Your task to perform on an android device: open a new tab in the chrome app Image 0: 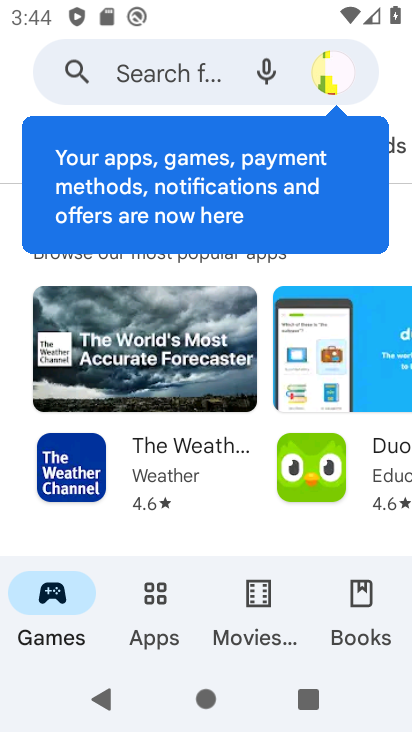
Step 0: press home button
Your task to perform on an android device: open a new tab in the chrome app Image 1: 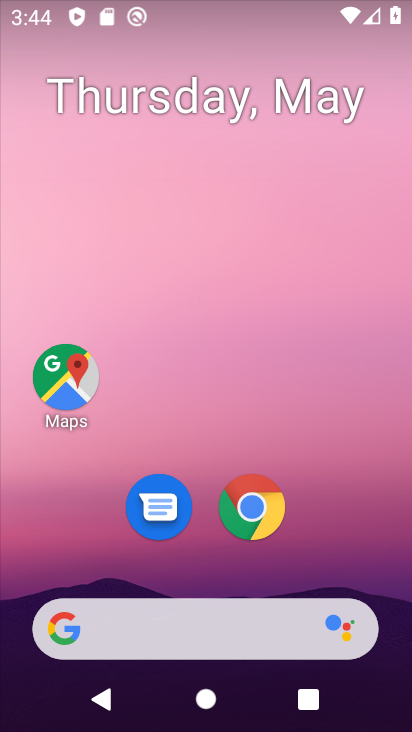
Step 1: click (252, 509)
Your task to perform on an android device: open a new tab in the chrome app Image 2: 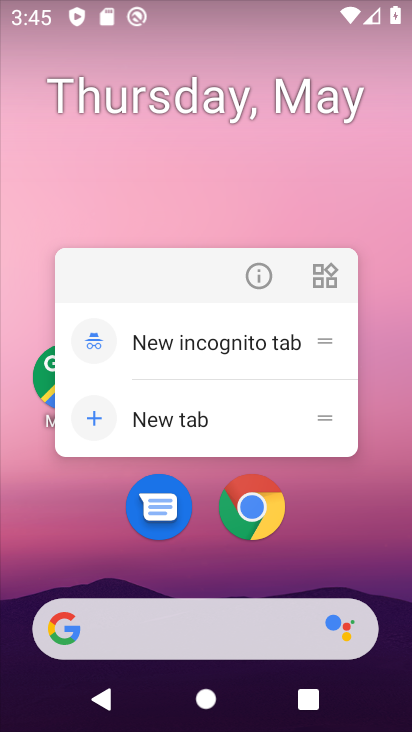
Step 2: click (250, 507)
Your task to perform on an android device: open a new tab in the chrome app Image 3: 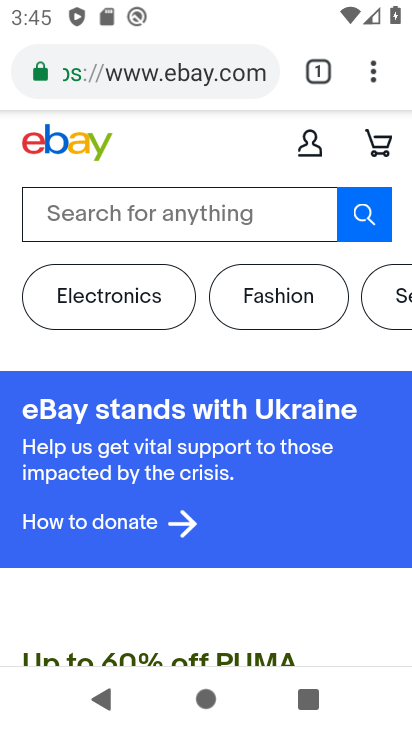
Step 3: click (365, 73)
Your task to perform on an android device: open a new tab in the chrome app Image 4: 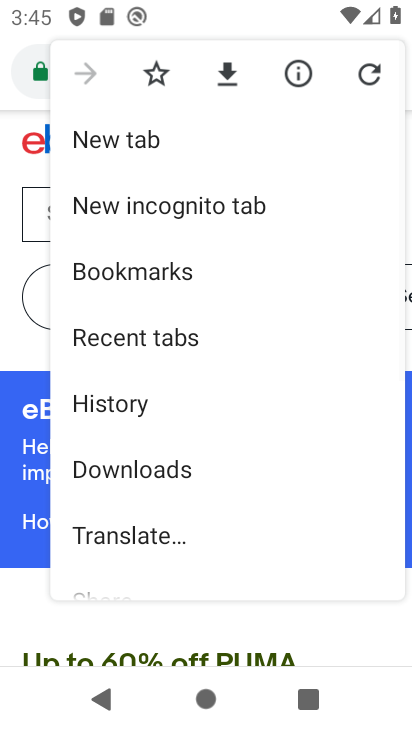
Step 4: click (174, 150)
Your task to perform on an android device: open a new tab in the chrome app Image 5: 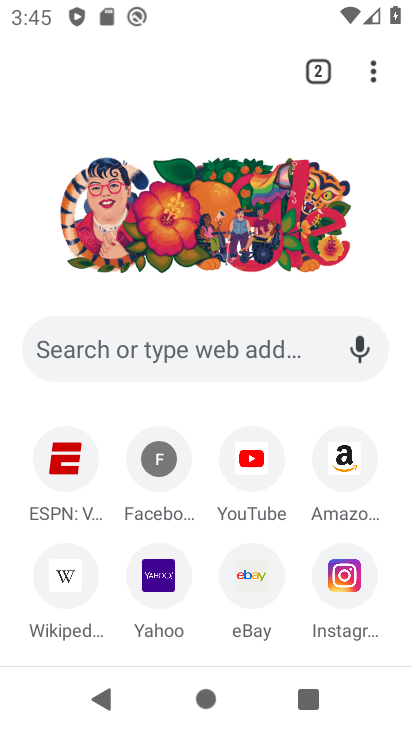
Step 5: task complete